Your task to perform on an android device: Open privacy settings Image 0: 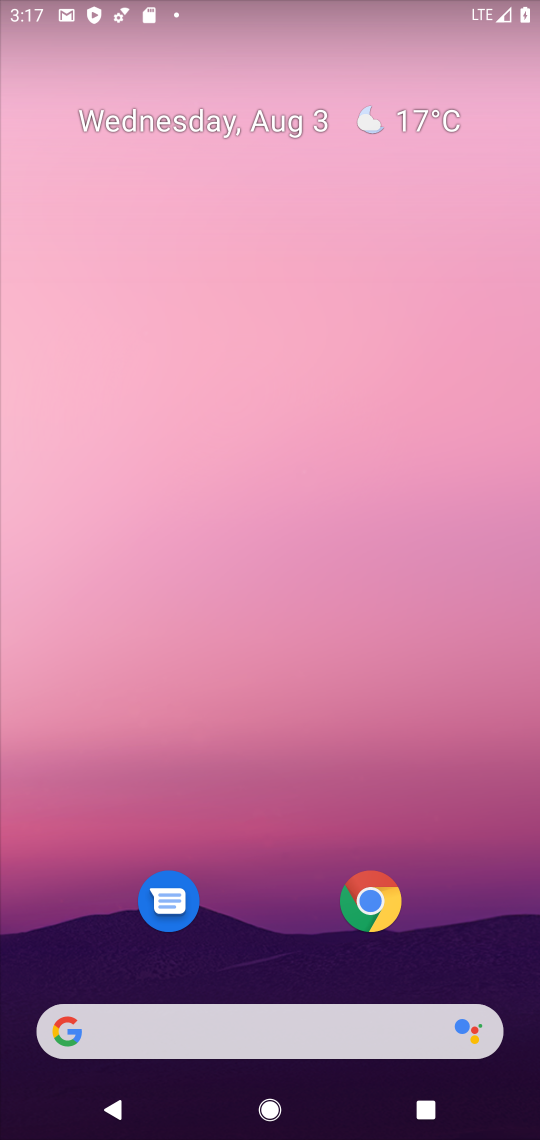
Step 0: drag from (344, 904) to (340, 358)
Your task to perform on an android device: Open privacy settings Image 1: 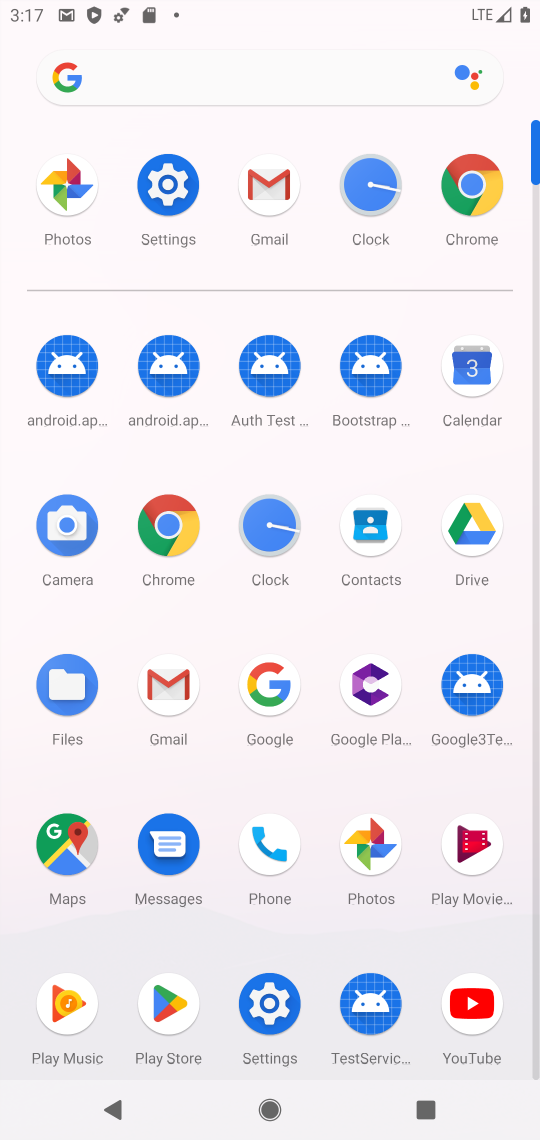
Step 1: click (162, 173)
Your task to perform on an android device: Open privacy settings Image 2: 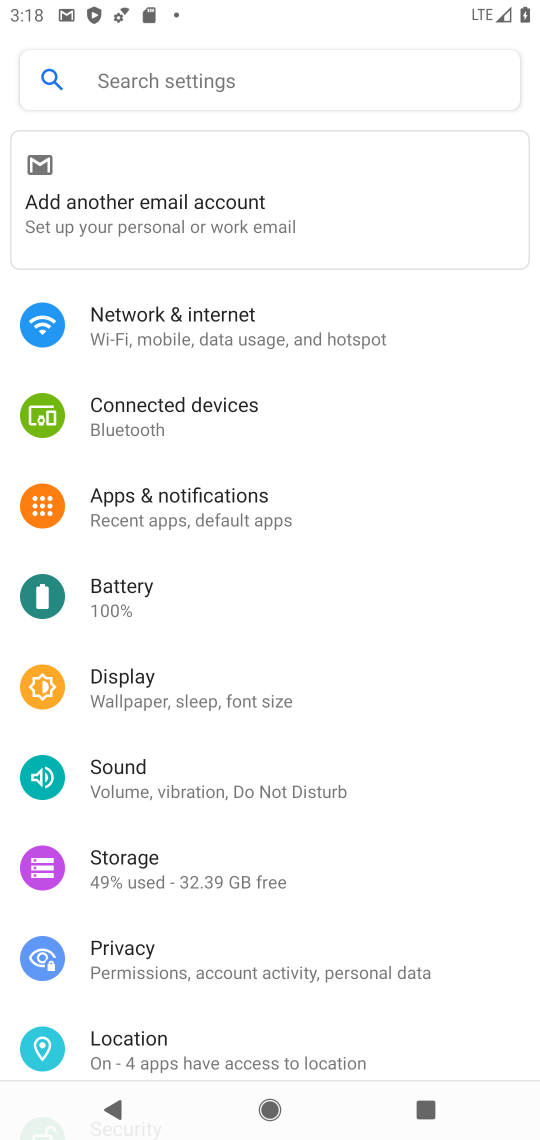
Step 2: click (180, 973)
Your task to perform on an android device: Open privacy settings Image 3: 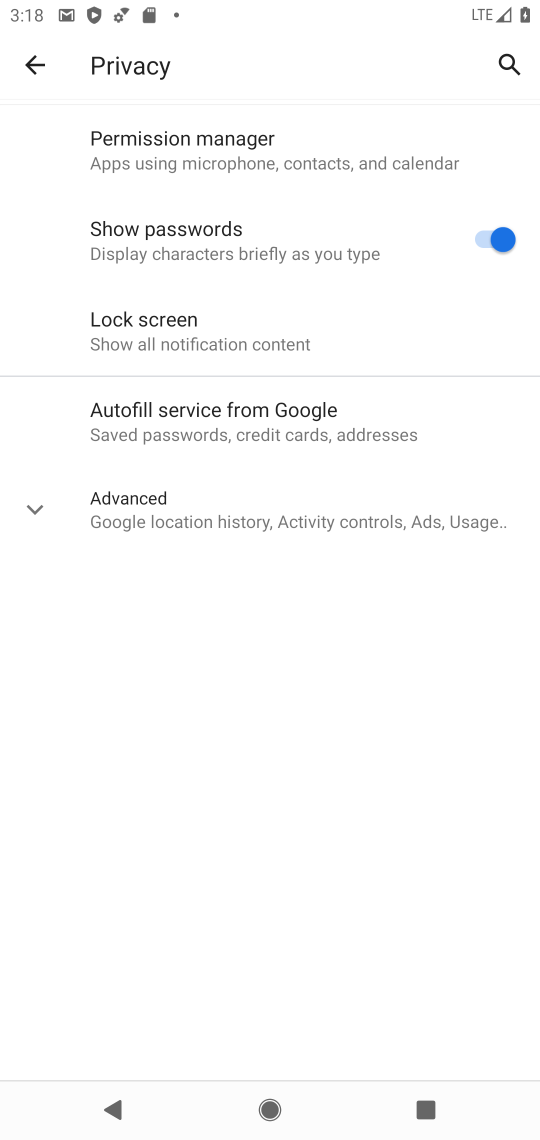
Step 3: task complete